Your task to perform on an android device: Open location settings Image 0: 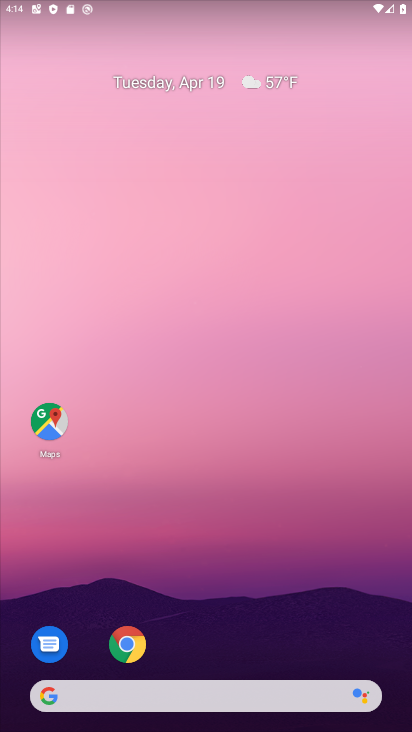
Step 0: drag from (306, 513) to (331, 123)
Your task to perform on an android device: Open location settings Image 1: 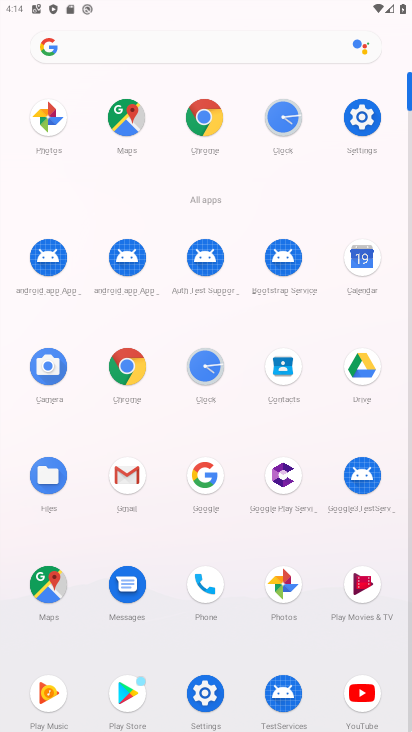
Step 1: click (365, 127)
Your task to perform on an android device: Open location settings Image 2: 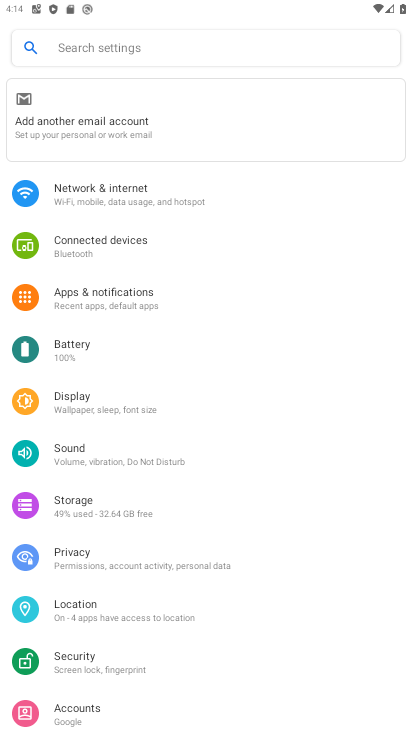
Step 2: drag from (130, 590) to (243, 251)
Your task to perform on an android device: Open location settings Image 3: 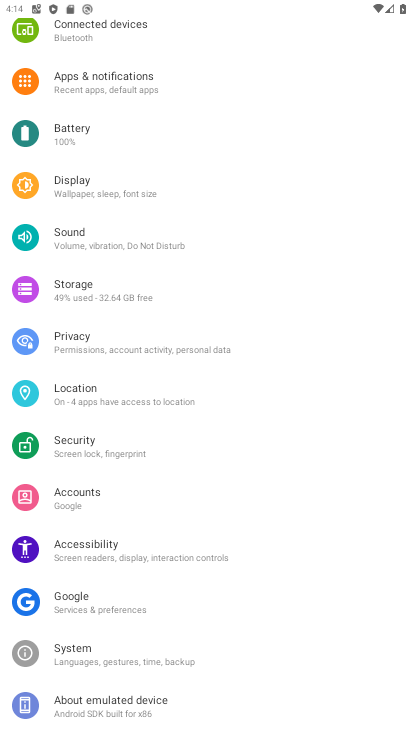
Step 3: click (76, 396)
Your task to perform on an android device: Open location settings Image 4: 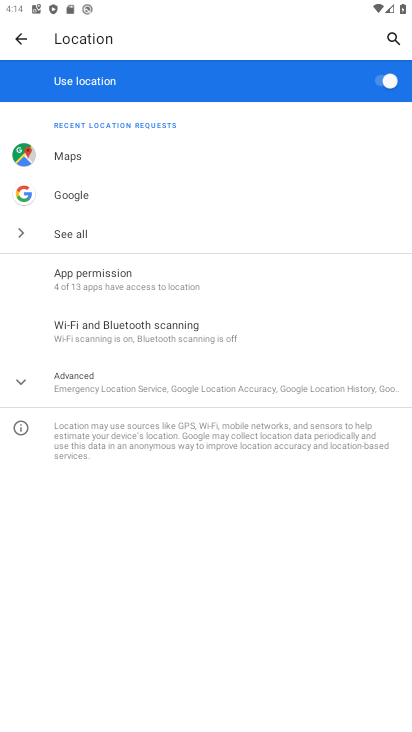
Step 4: task complete